Your task to perform on an android device: change alarm snooze length Image 0: 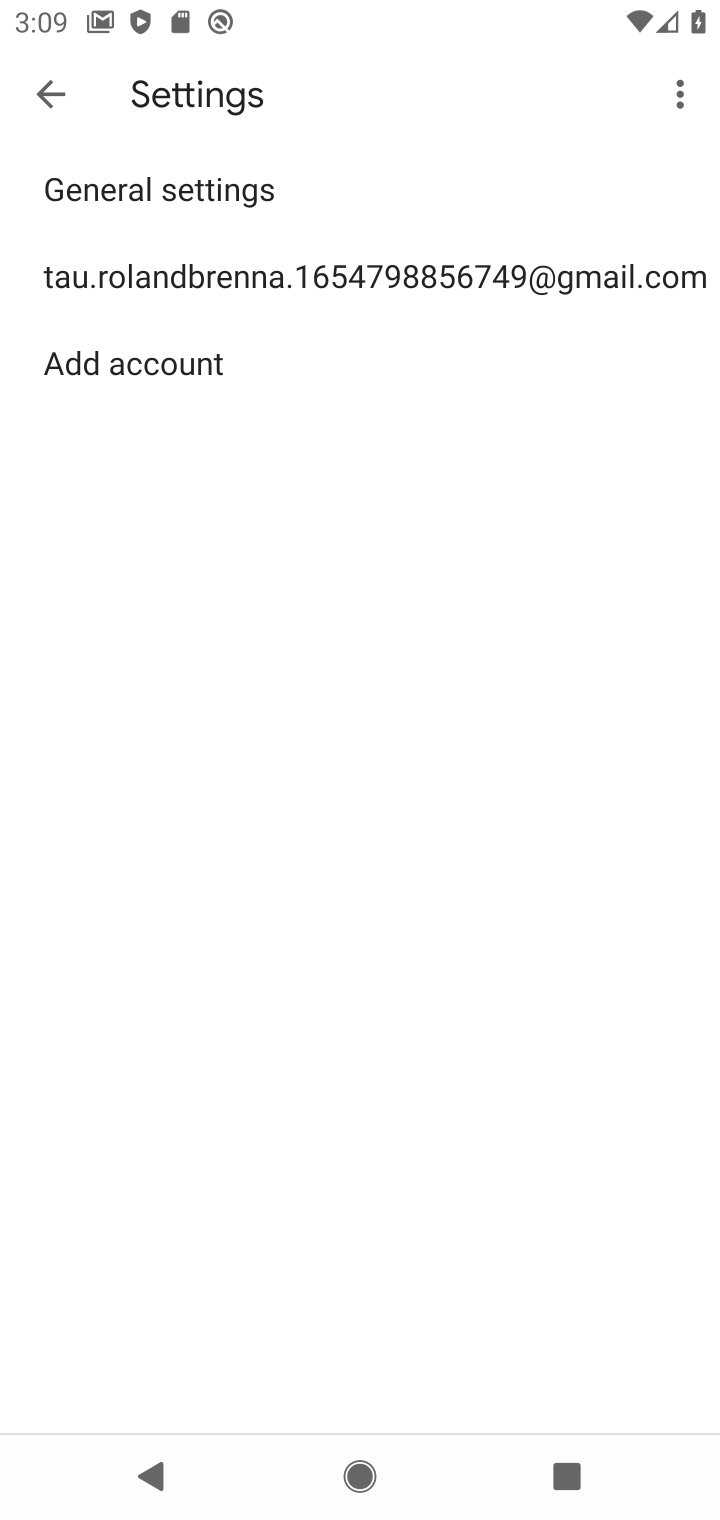
Step 0: press home button
Your task to perform on an android device: change alarm snooze length Image 1: 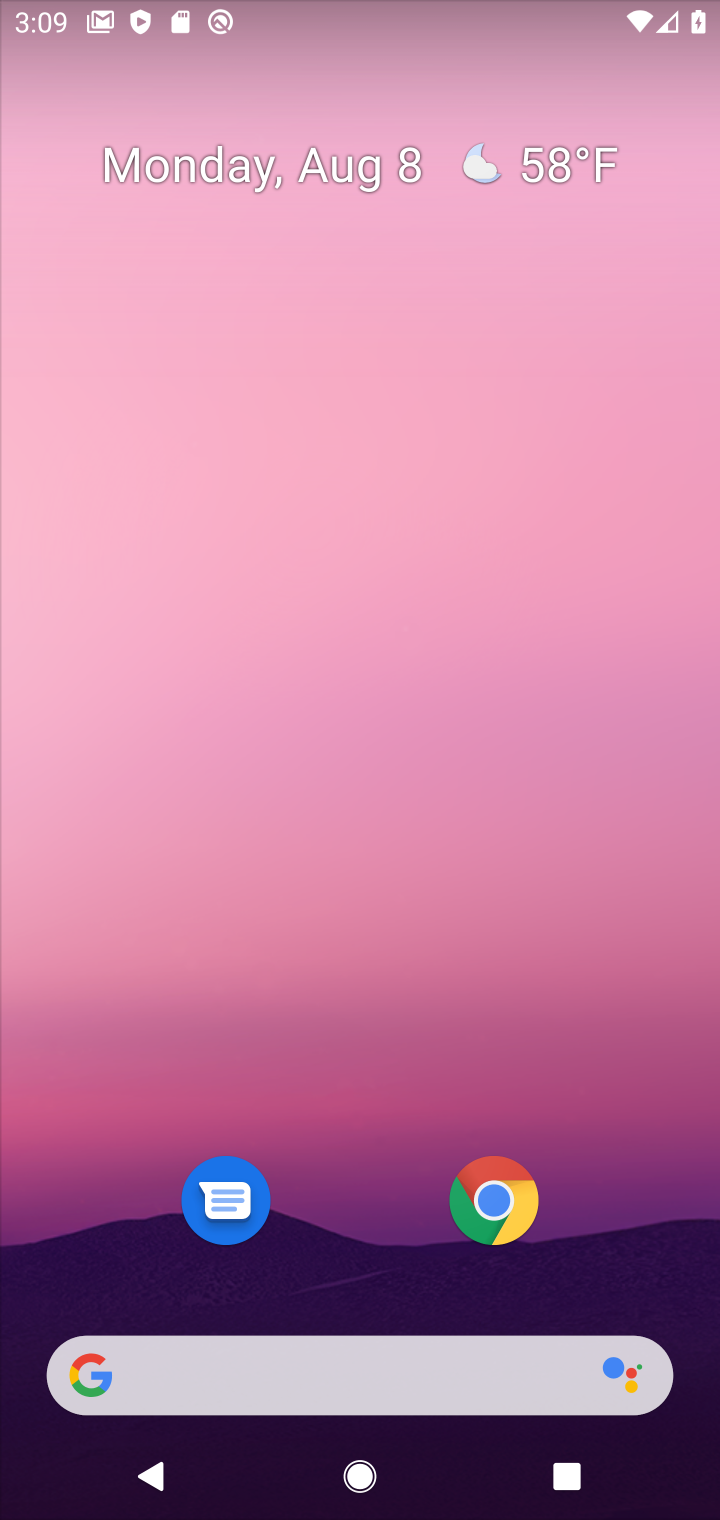
Step 1: drag from (359, 1227) to (499, 263)
Your task to perform on an android device: change alarm snooze length Image 2: 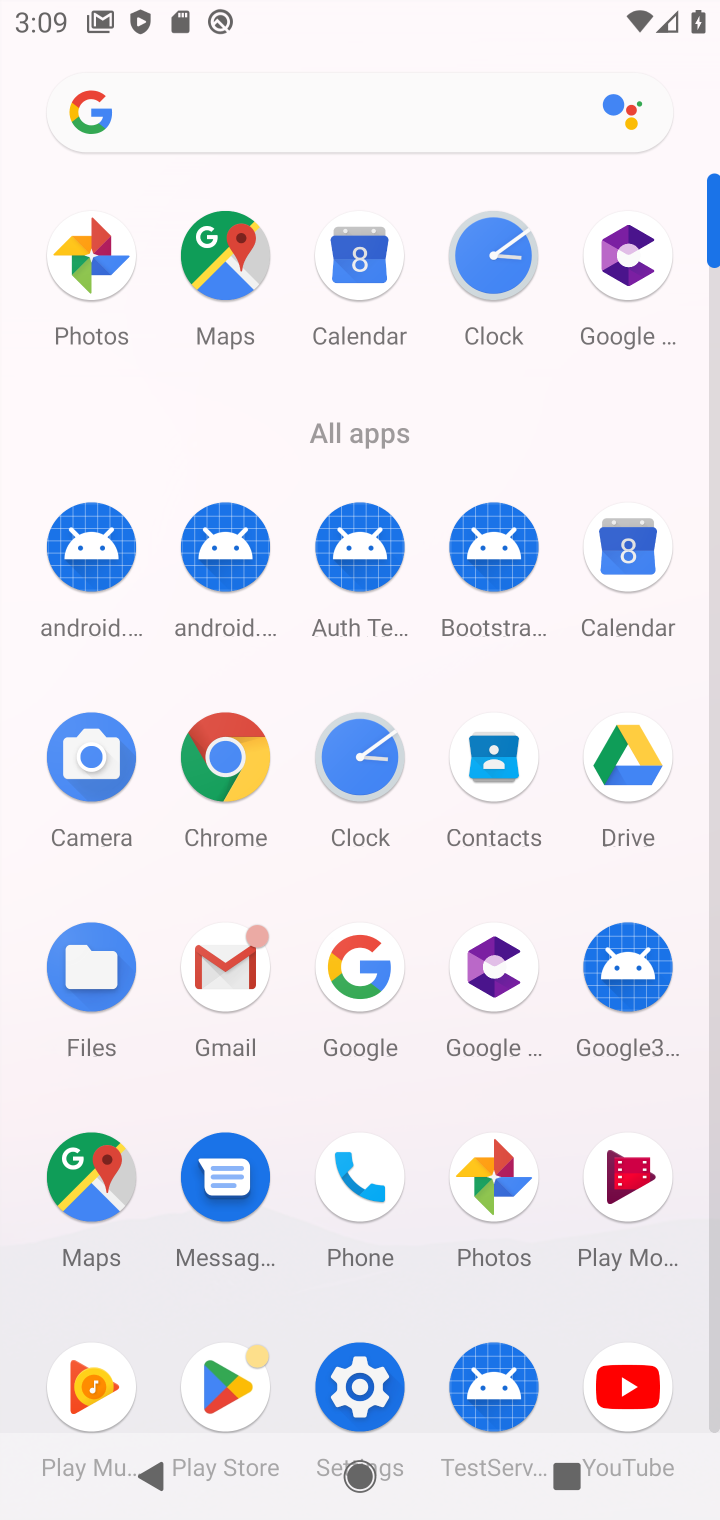
Step 2: click (483, 249)
Your task to perform on an android device: change alarm snooze length Image 3: 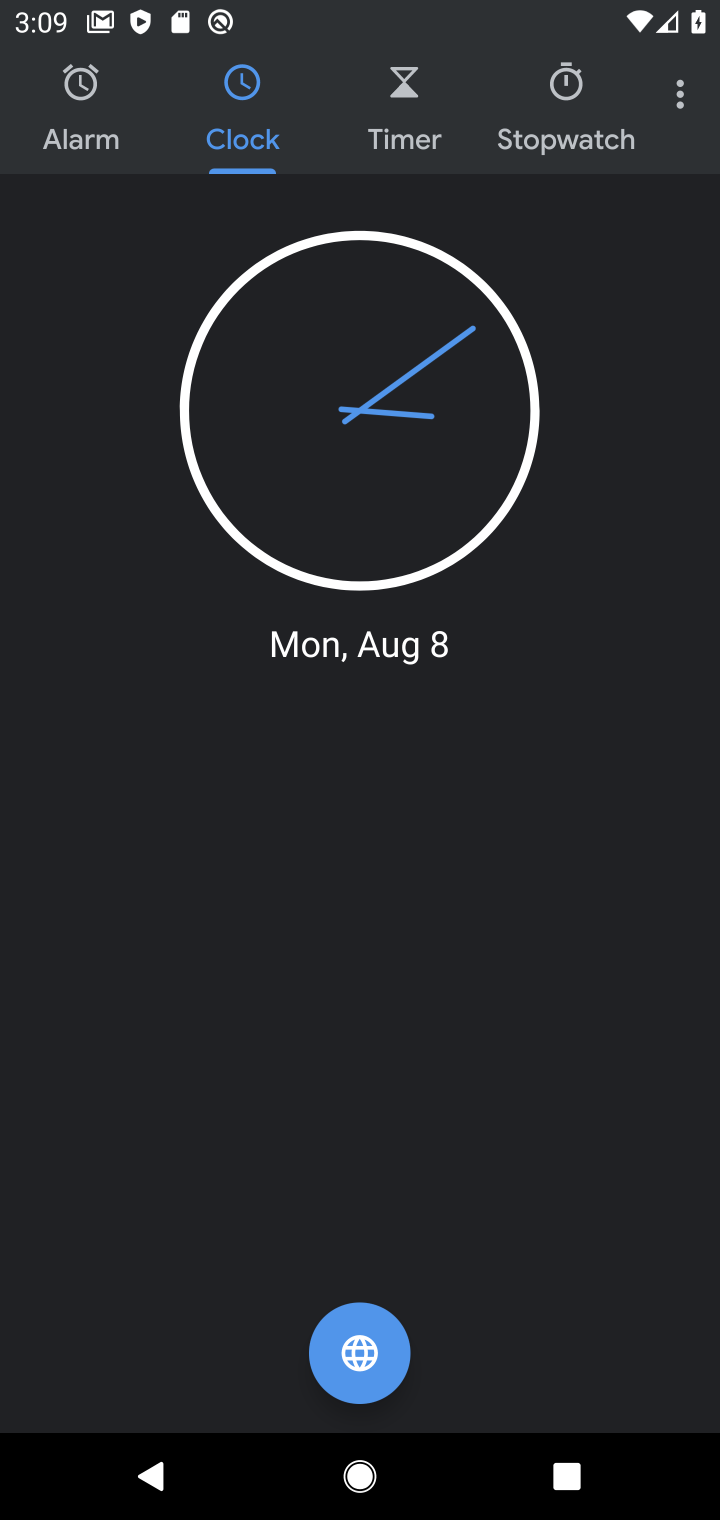
Step 3: click (684, 116)
Your task to perform on an android device: change alarm snooze length Image 4: 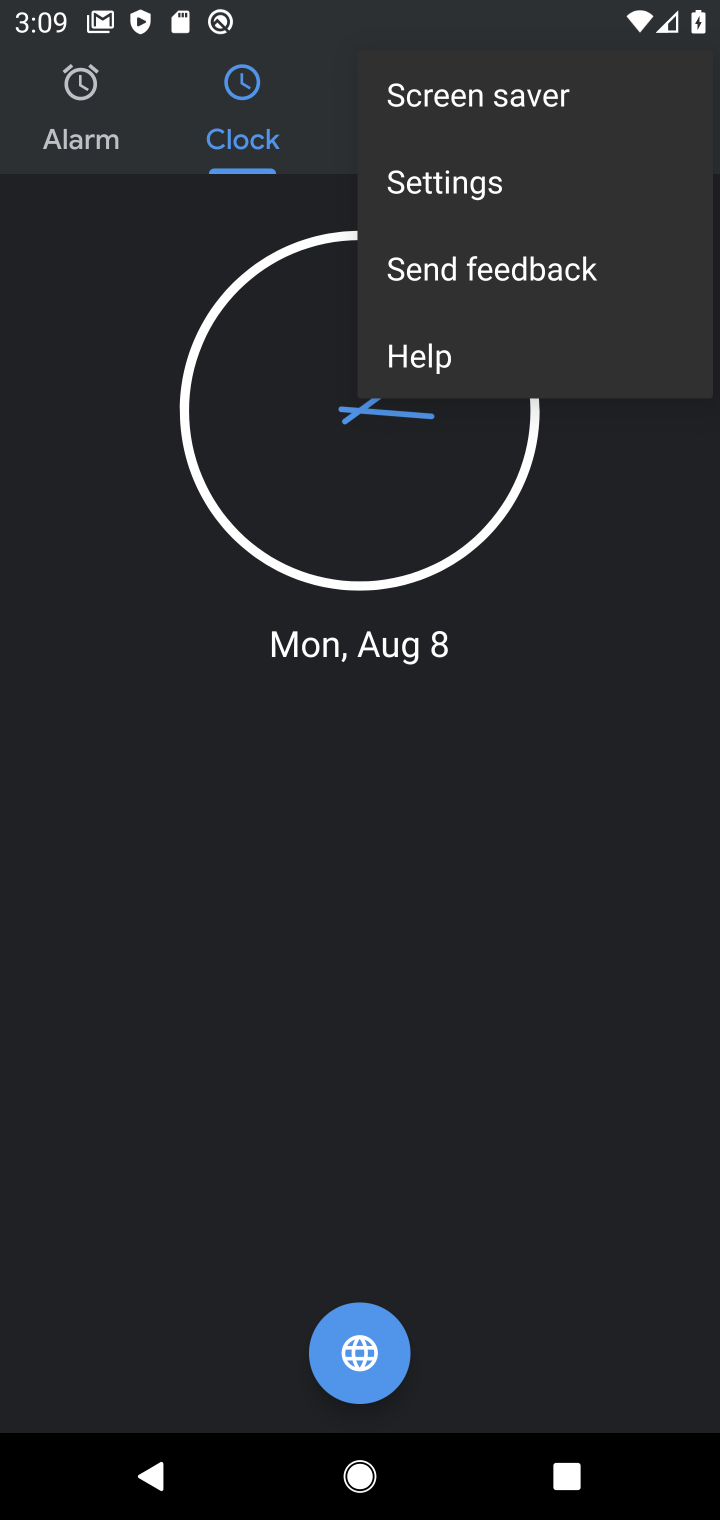
Step 4: click (457, 177)
Your task to perform on an android device: change alarm snooze length Image 5: 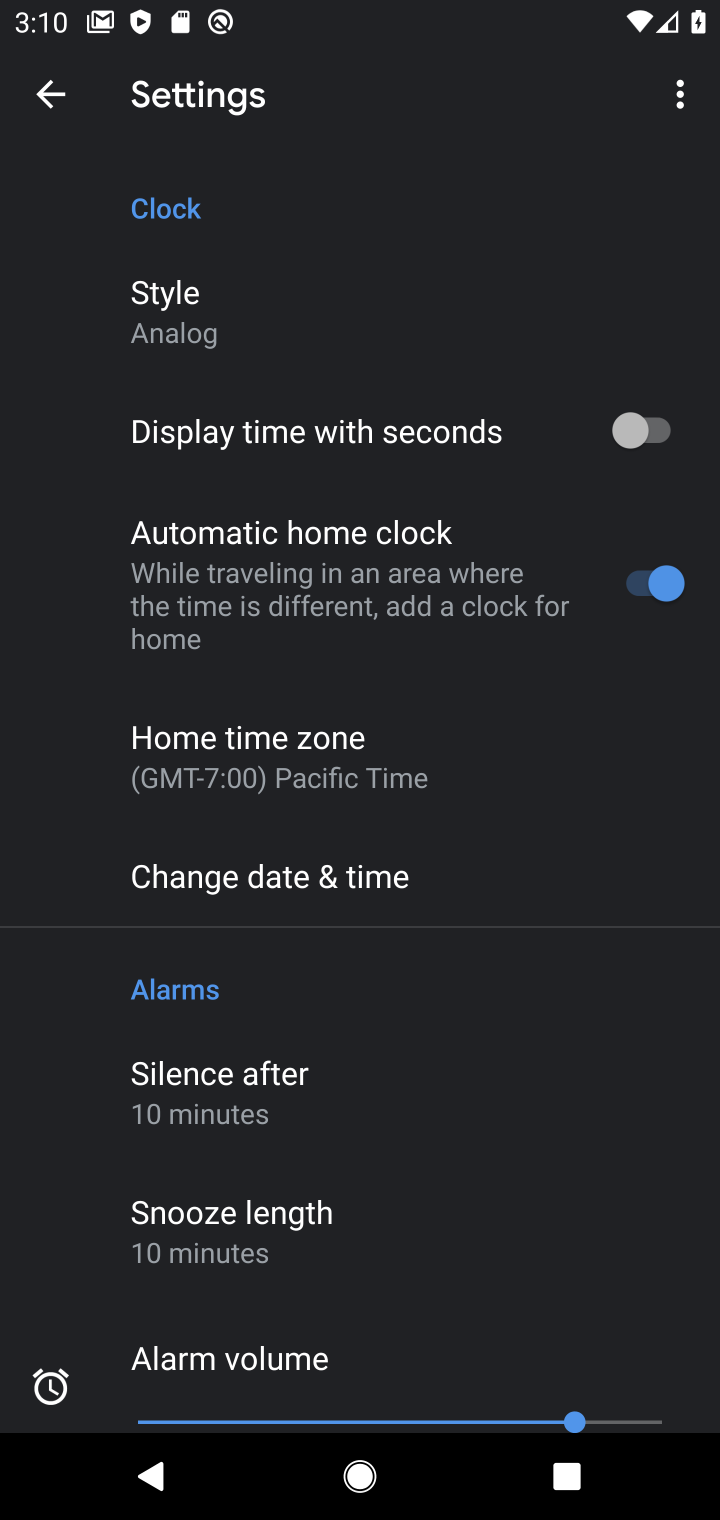
Step 5: drag from (538, 972) to (544, 710)
Your task to perform on an android device: change alarm snooze length Image 6: 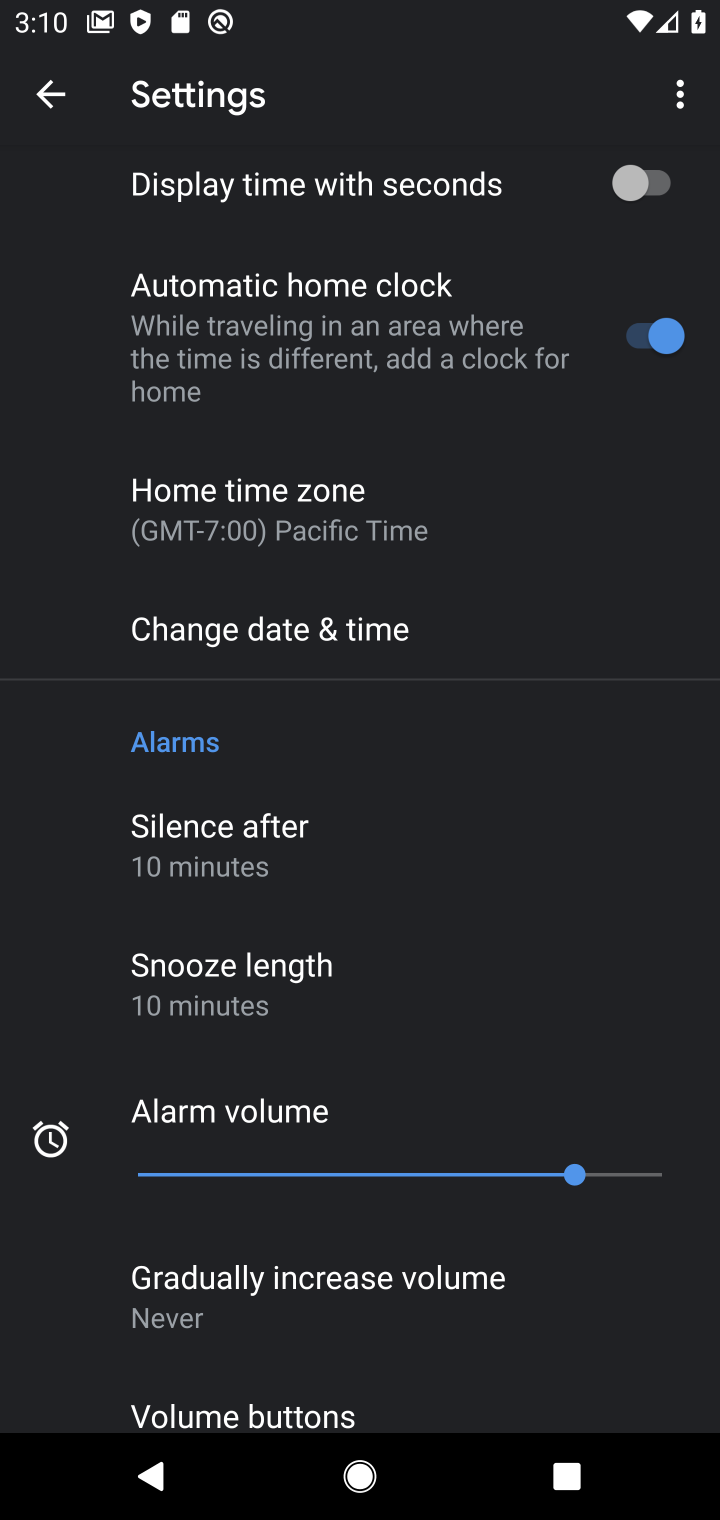
Step 6: click (277, 983)
Your task to perform on an android device: change alarm snooze length Image 7: 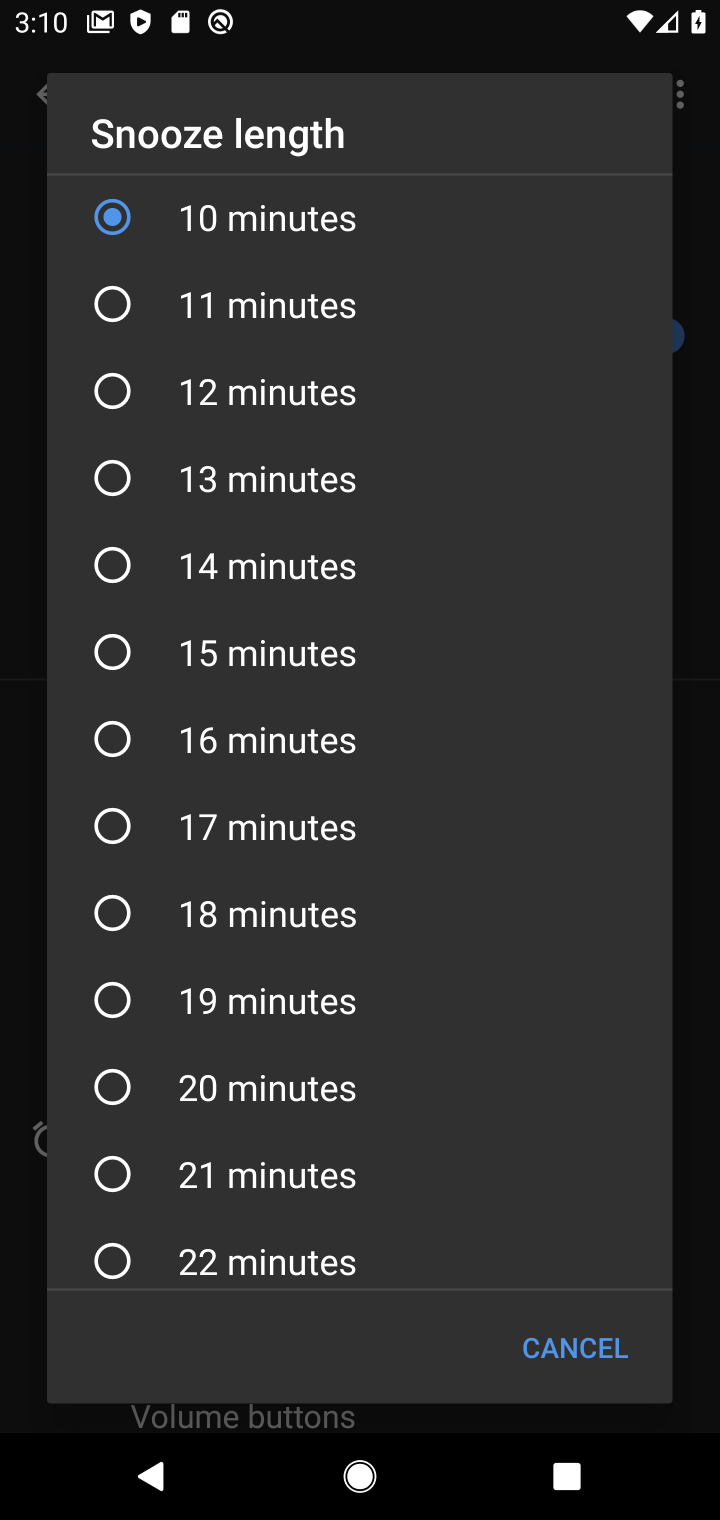
Step 7: click (208, 671)
Your task to perform on an android device: change alarm snooze length Image 8: 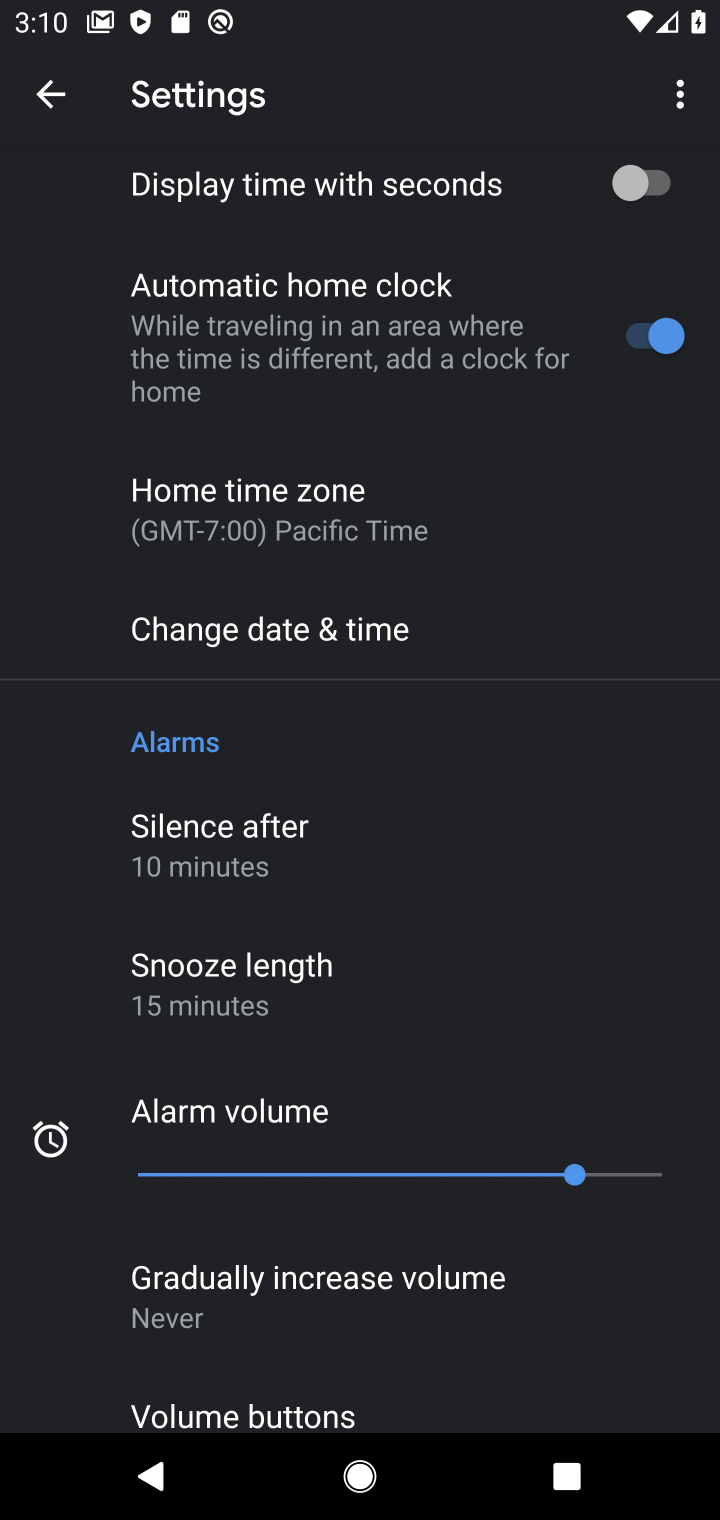
Step 8: task complete